Your task to perform on an android device: Show me popular videos on Youtube Image 0: 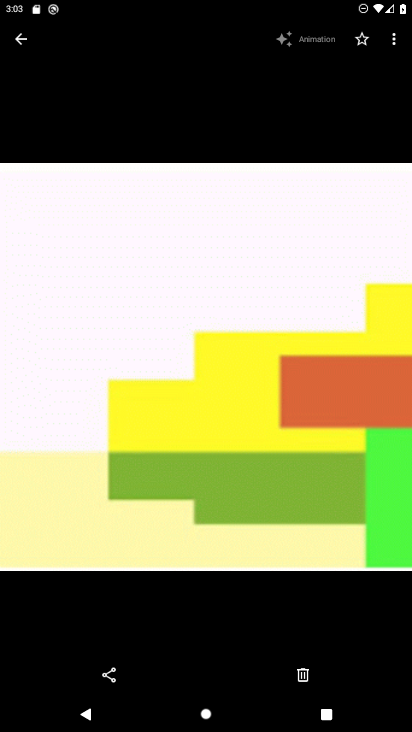
Step 0: press home button
Your task to perform on an android device: Show me popular videos on Youtube Image 1: 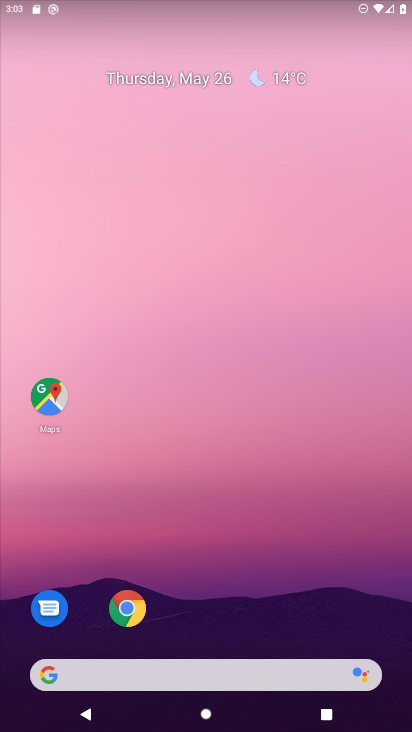
Step 1: drag from (263, 590) to (328, 97)
Your task to perform on an android device: Show me popular videos on Youtube Image 2: 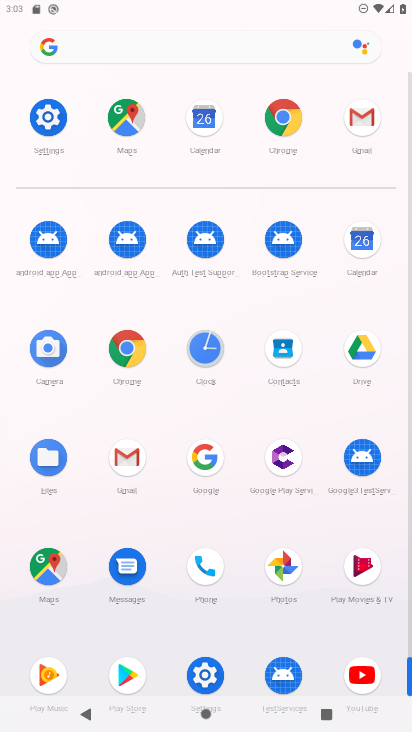
Step 2: click (361, 685)
Your task to perform on an android device: Show me popular videos on Youtube Image 3: 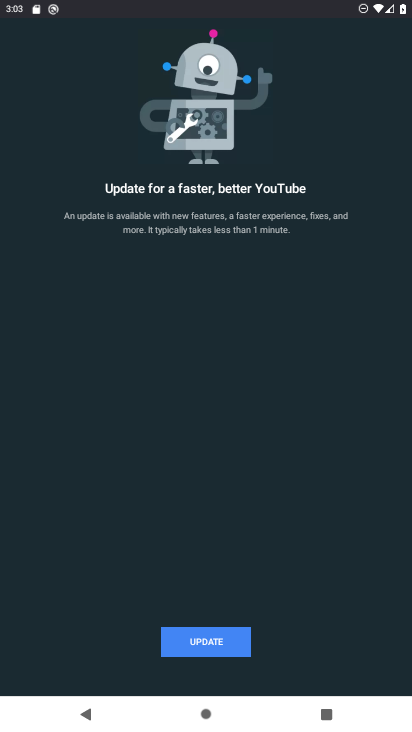
Step 3: click (213, 640)
Your task to perform on an android device: Show me popular videos on Youtube Image 4: 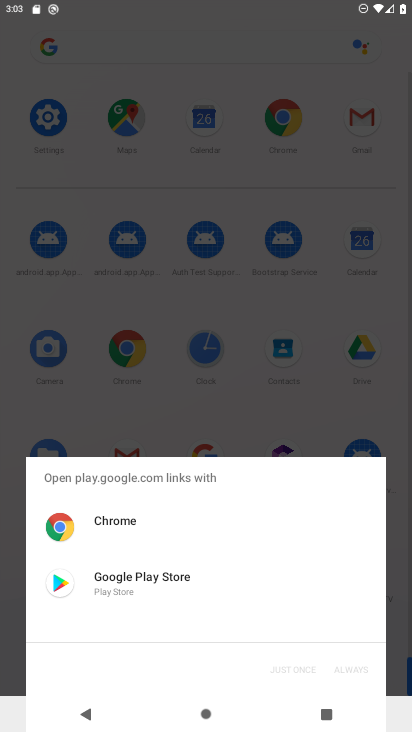
Step 4: click (109, 578)
Your task to perform on an android device: Show me popular videos on Youtube Image 5: 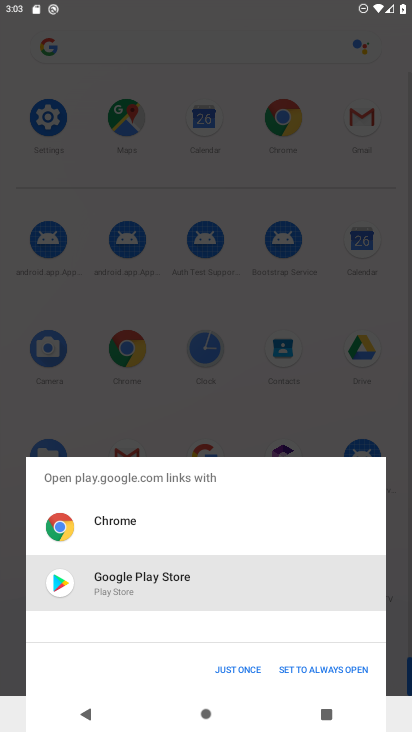
Step 5: click (217, 673)
Your task to perform on an android device: Show me popular videos on Youtube Image 6: 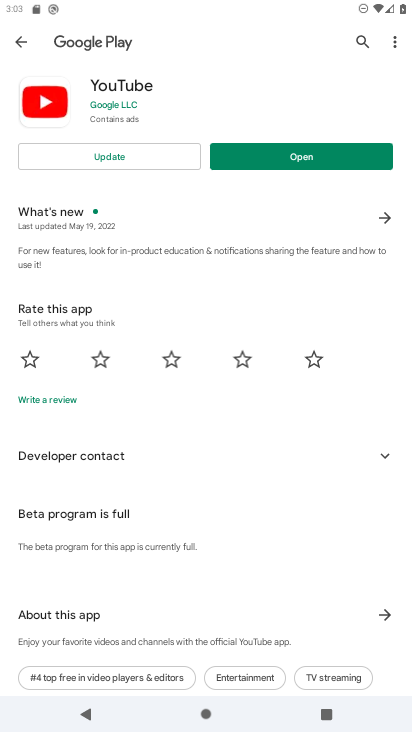
Step 6: click (113, 161)
Your task to perform on an android device: Show me popular videos on Youtube Image 7: 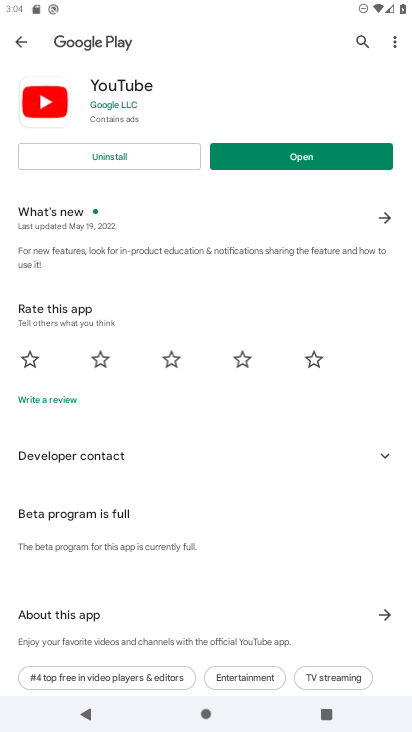
Step 7: click (307, 156)
Your task to perform on an android device: Show me popular videos on Youtube Image 8: 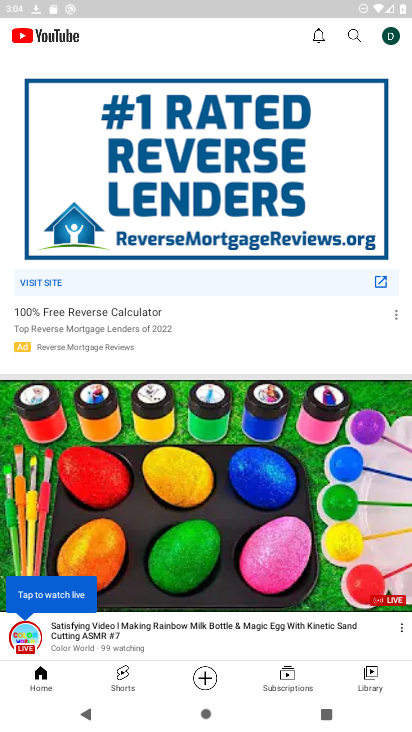
Step 8: click (350, 31)
Your task to perform on an android device: Show me popular videos on Youtube Image 9: 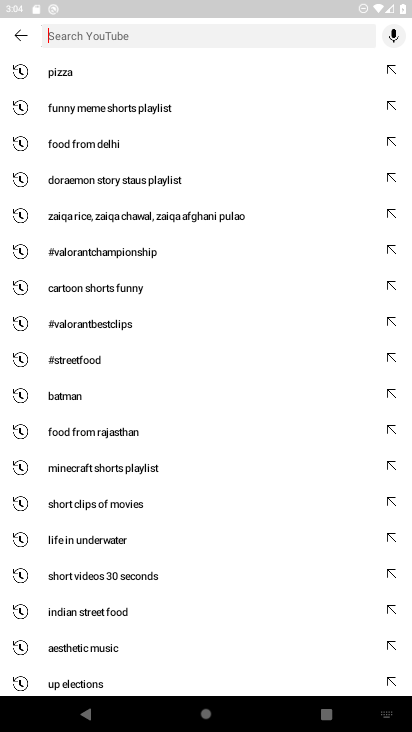
Step 9: type "popular vidoes"
Your task to perform on an android device: Show me popular videos on Youtube Image 10: 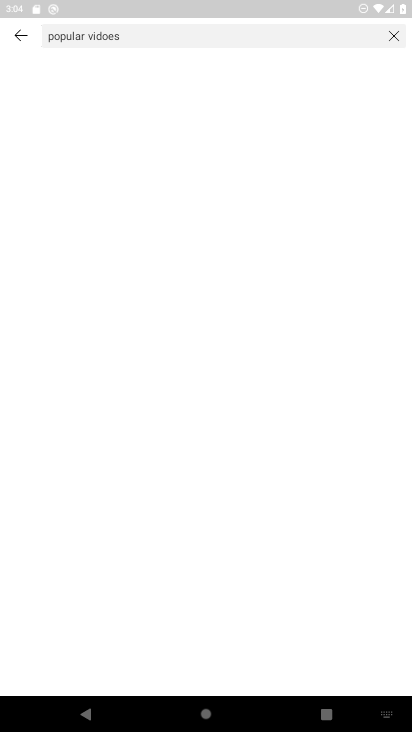
Step 10: press enter
Your task to perform on an android device: Show me popular videos on Youtube Image 11: 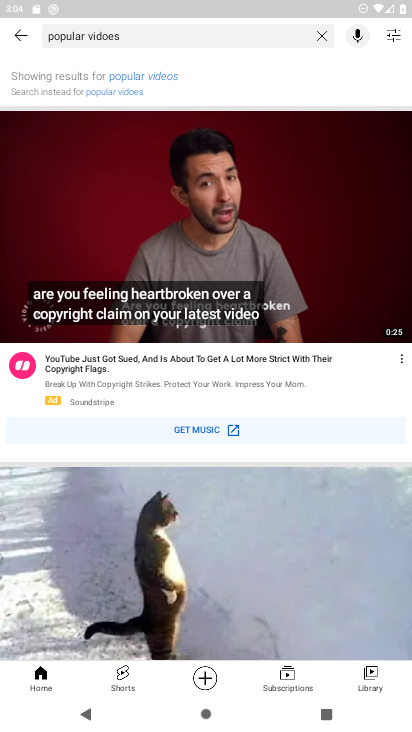
Step 11: task complete